Your task to perform on an android device: move an email to a new category in the gmail app Image 0: 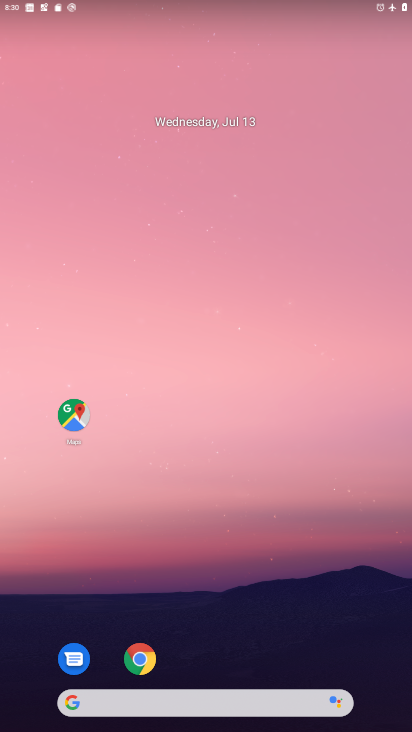
Step 0: drag from (230, 574) to (243, 3)
Your task to perform on an android device: move an email to a new category in the gmail app Image 1: 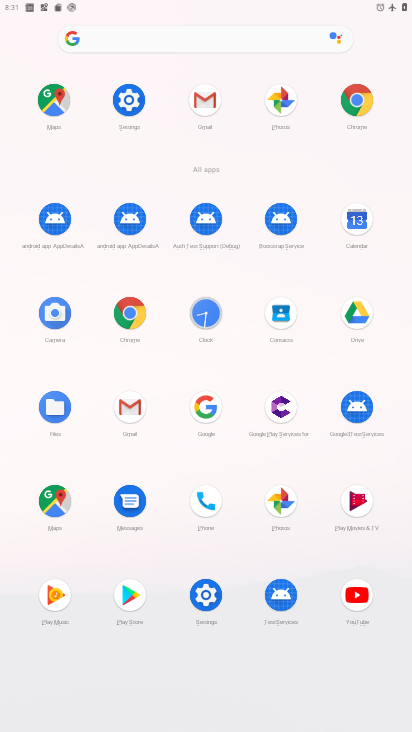
Step 1: click (200, 105)
Your task to perform on an android device: move an email to a new category in the gmail app Image 2: 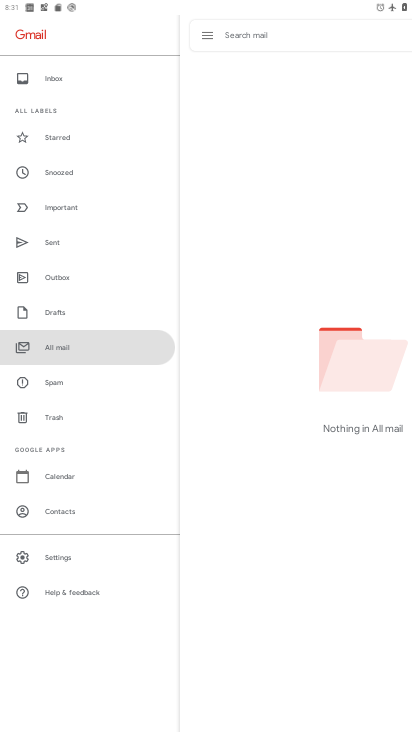
Step 2: click (57, 347)
Your task to perform on an android device: move an email to a new category in the gmail app Image 3: 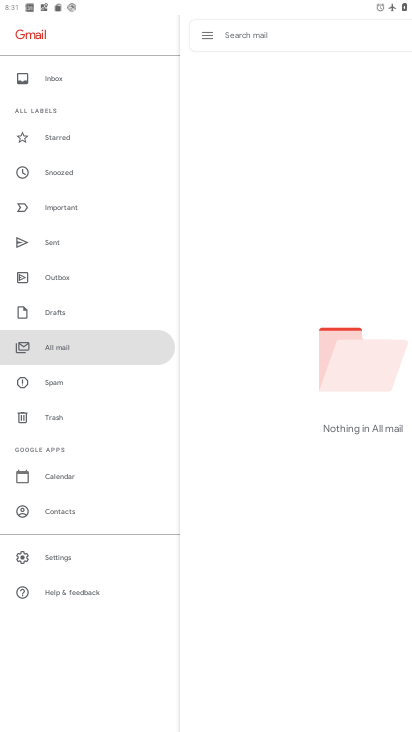
Step 3: task complete